Your task to perform on an android device: Go to Google Image 0: 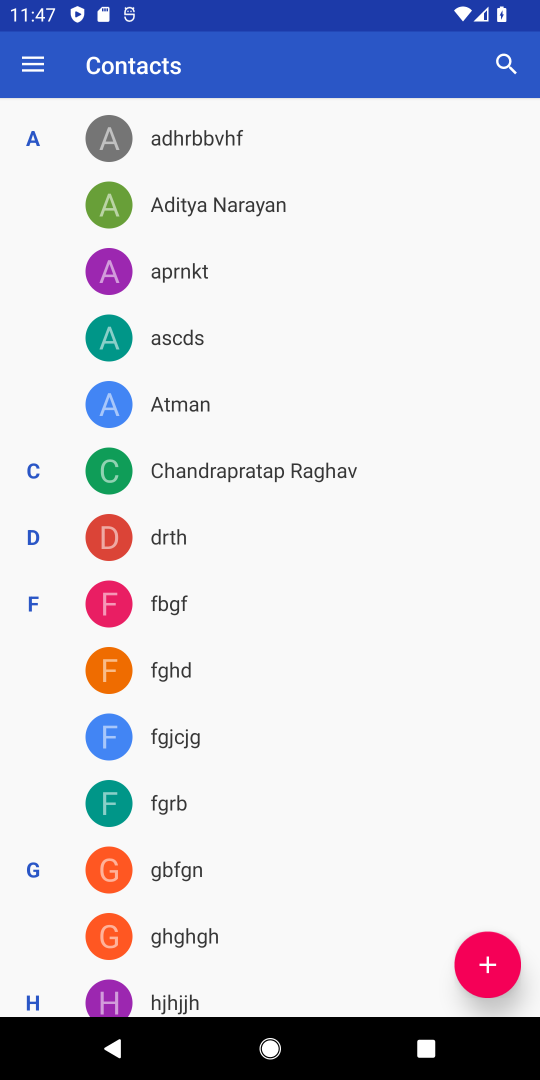
Step 0: press home button
Your task to perform on an android device: Go to Google Image 1: 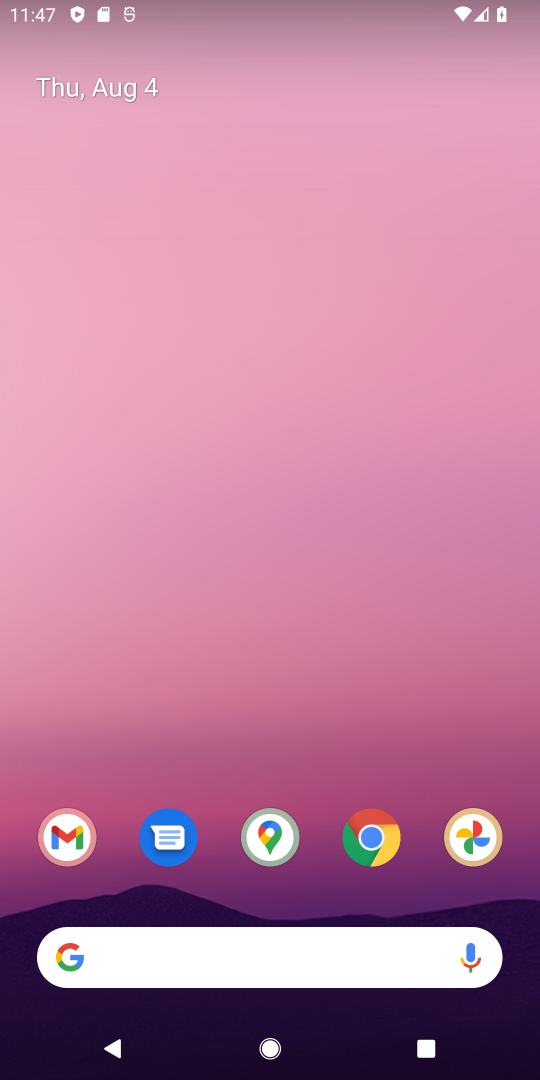
Step 1: drag from (243, 896) to (246, 106)
Your task to perform on an android device: Go to Google Image 2: 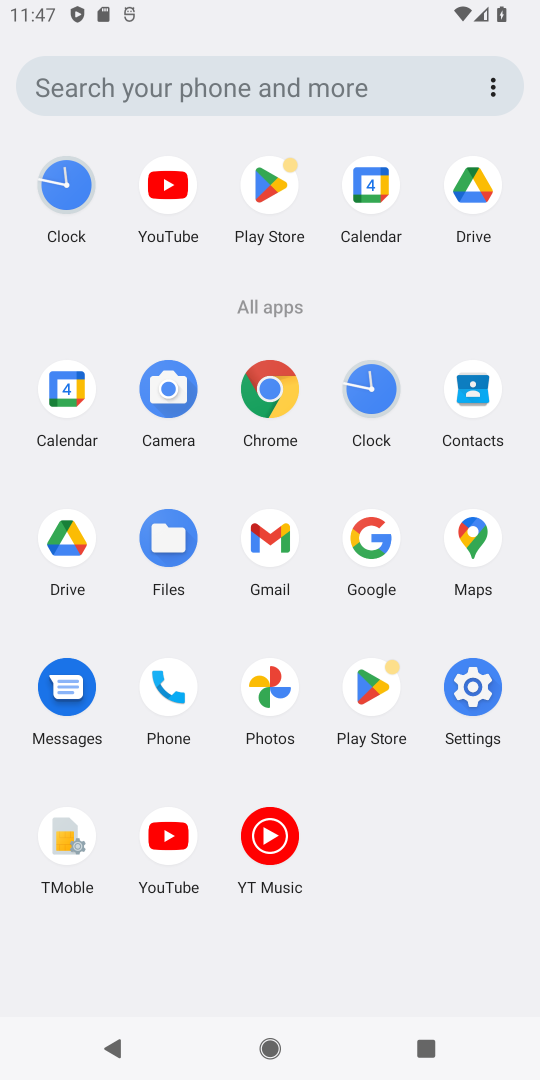
Step 2: click (373, 536)
Your task to perform on an android device: Go to Google Image 3: 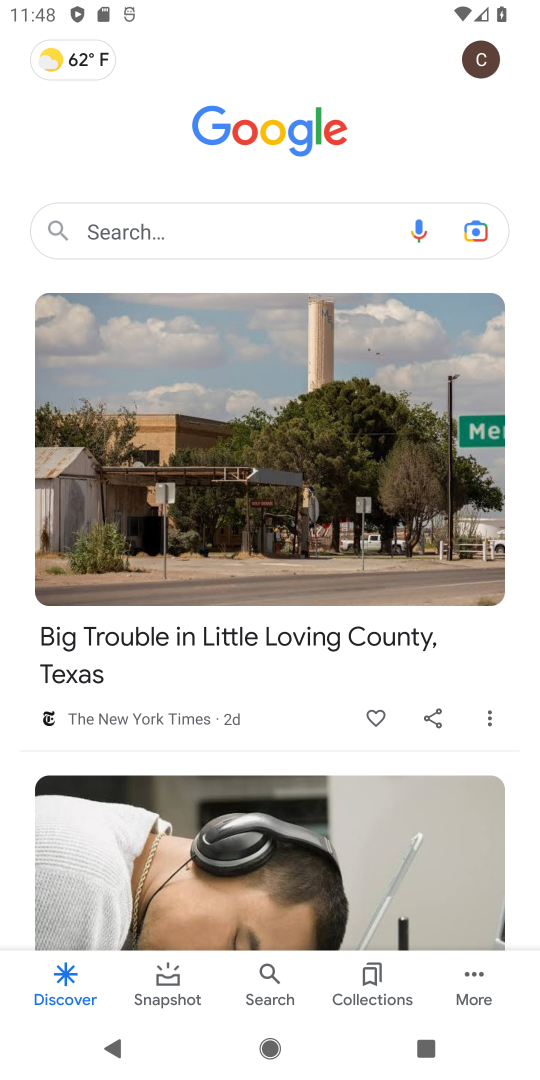
Step 3: task complete